Your task to perform on an android device: Show me productivity apps on the Play Store Image 0: 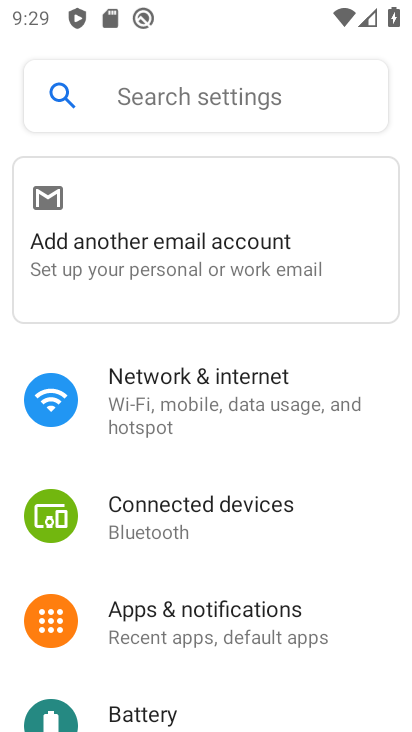
Step 0: press home button
Your task to perform on an android device: Show me productivity apps on the Play Store Image 1: 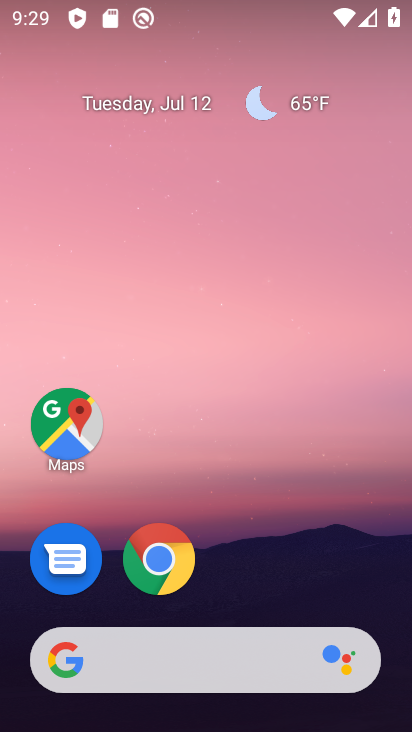
Step 1: drag from (368, 583) to (368, 161)
Your task to perform on an android device: Show me productivity apps on the Play Store Image 2: 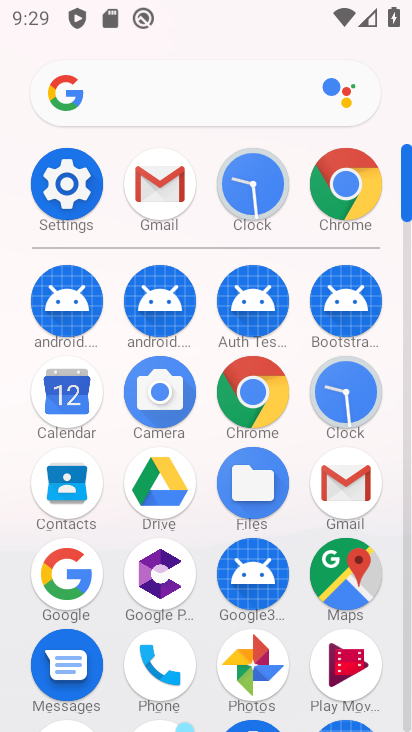
Step 2: drag from (384, 529) to (386, 258)
Your task to perform on an android device: Show me productivity apps on the Play Store Image 3: 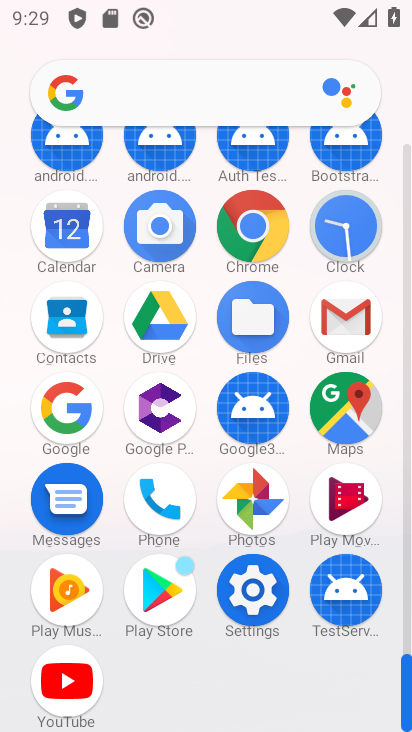
Step 3: click (167, 572)
Your task to perform on an android device: Show me productivity apps on the Play Store Image 4: 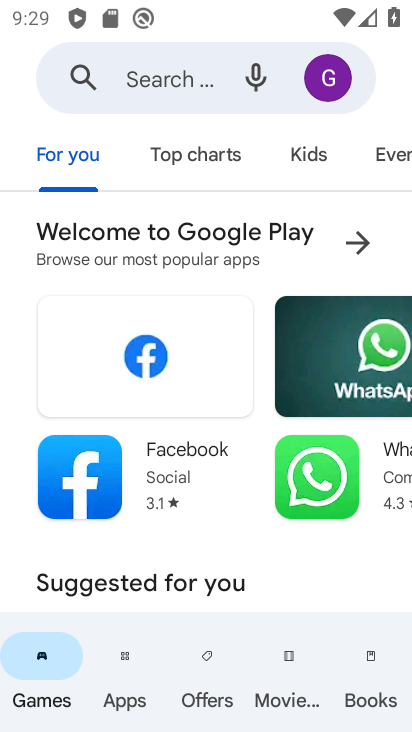
Step 4: click (128, 683)
Your task to perform on an android device: Show me productivity apps on the Play Store Image 5: 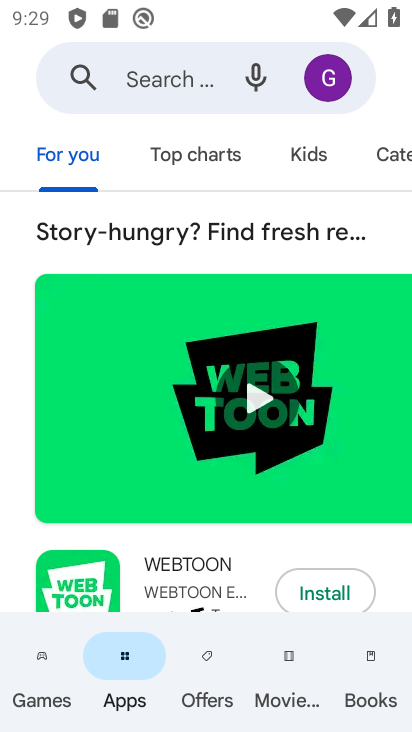
Step 5: task complete